Your task to perform on an android device: see creations saved in the google photos Image 0: 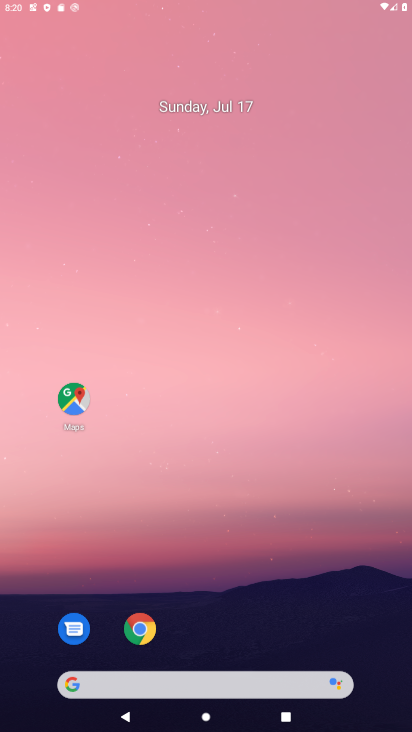
Step 0: click (230, 147)
Your task to perform on an android device: see creations saved in the google photos Image 1: 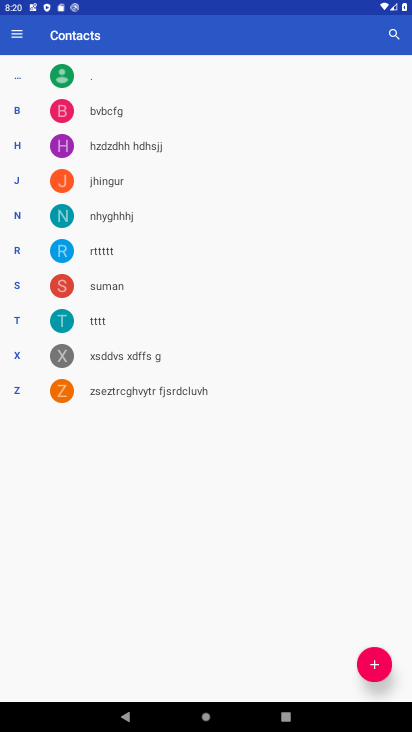
Step 1: press home button
Your task to perform on an android device: see creations saved in the google photos Image 2: 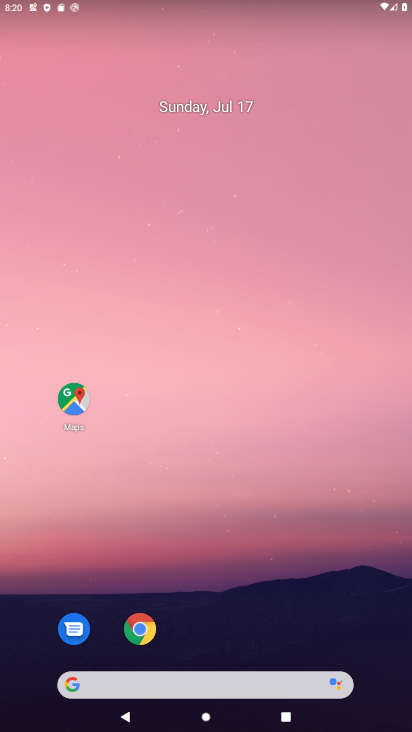
Step 2: drag from (218, 684) to (192, 135)
Your task to perform on an android device: see creations saved in the google photos Image 3: 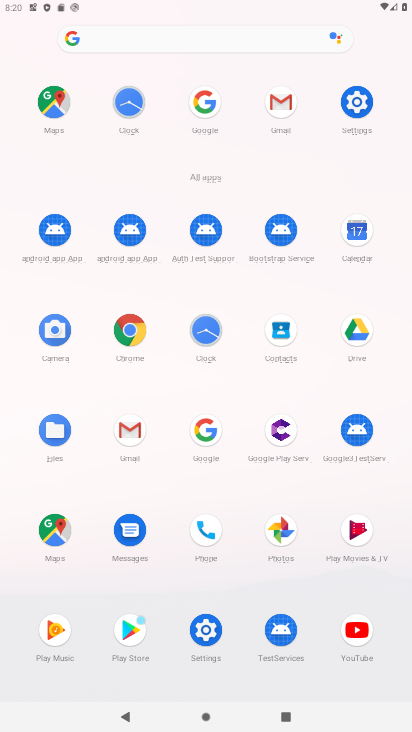
Step 3: click (275, 525)
Your task to perform on an android device: see creations saved in the google photos Image 4: 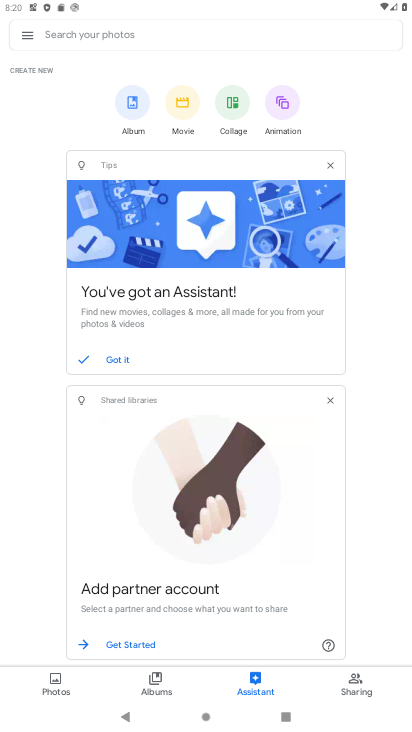
Step 4: click (171, 29)
Your task to perform on an android device: see creations saved in the google photos Image 5: 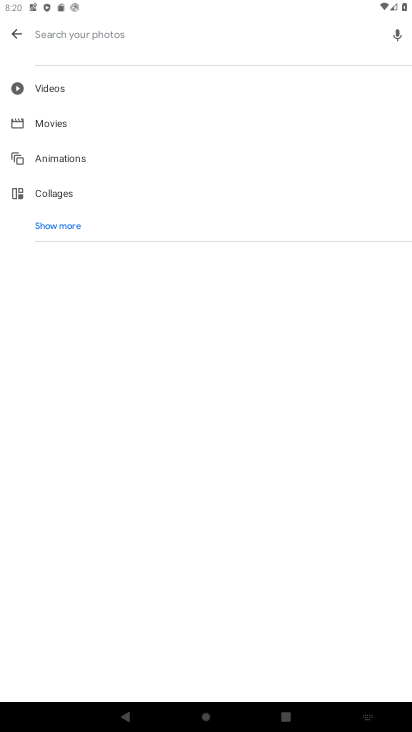
Step 5: click (62, 222)
Your task to perform on an android device: see creations saved in the google photos Image 6: 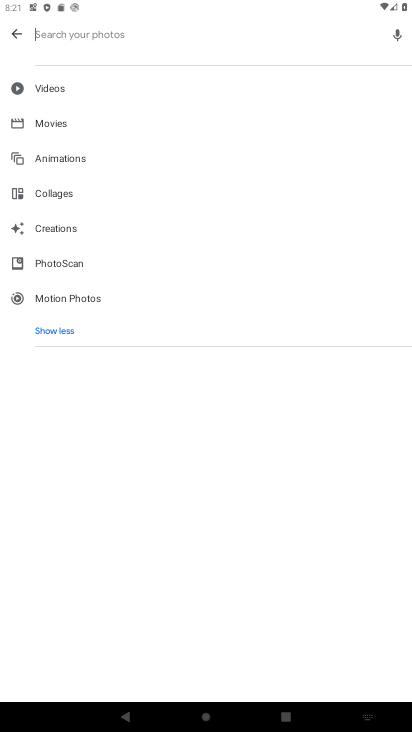
Step 6: click (70, 226)
Your task to perform on an android device: see creations saved in the google photos Image 7: 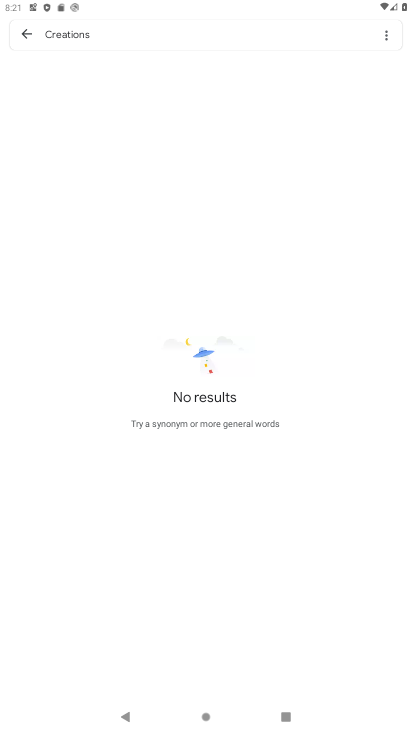
Step 7: task complete